Your task to perform on an android device: Toggle the flashlight Image 0: 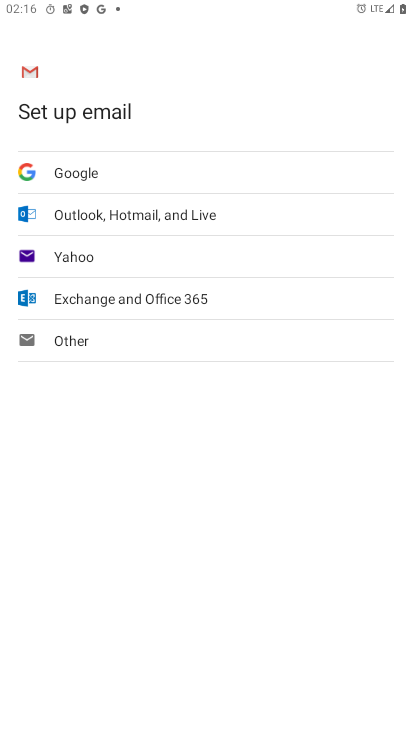
Step 0: press home button
Your task to perform on an android device: Toggle the flashlight Image 1: 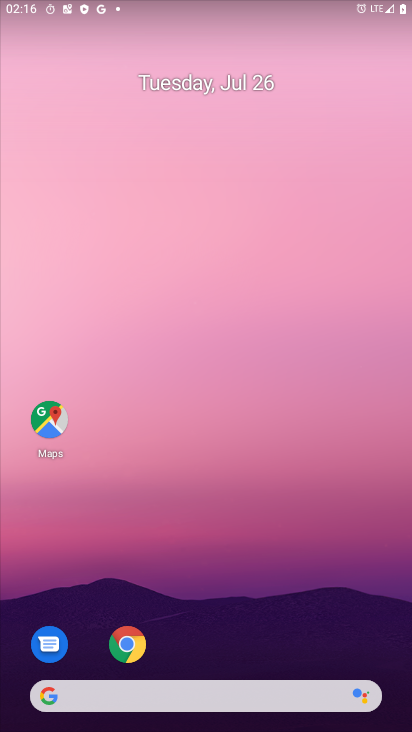
Step 1: task complete